Your task to perform on an android device: star an email in the gmail app Image 0: 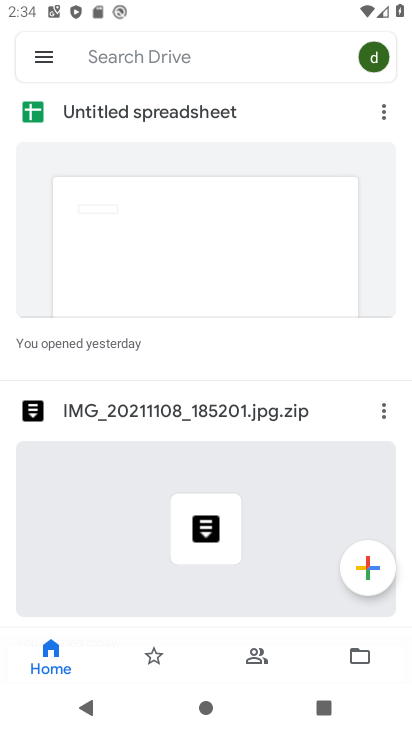
Step 0: press home button
Your task to perform on an android device: star an email in the gmail app Image 1: 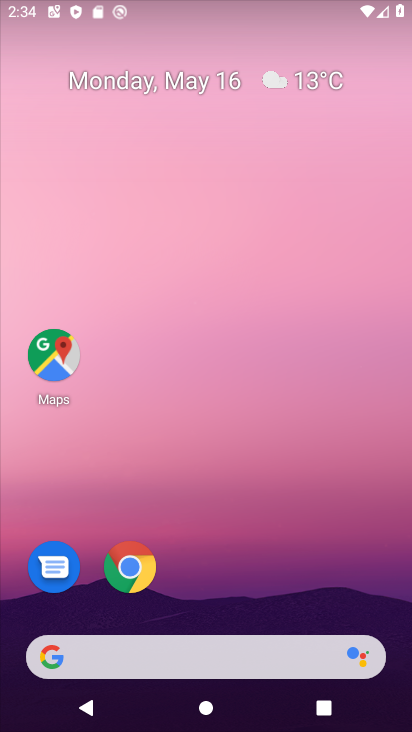
Step 1: drag from (322, 554) to (312, 93)
Your task to perform on an android device: star an email in the gmail app Image 2: 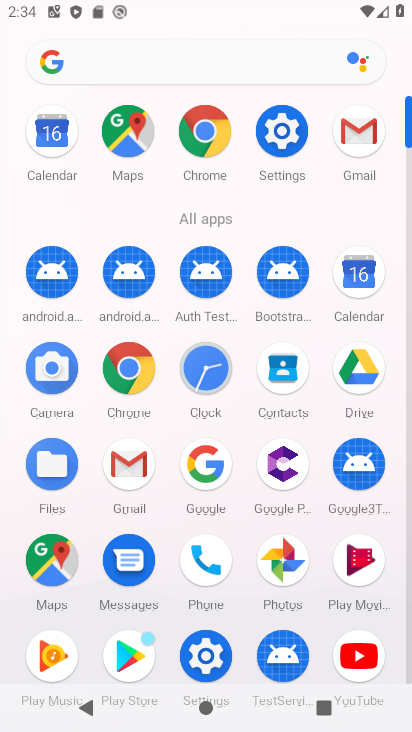
Step 2: click (357, 122)
Your task to perform on an android device: star an email in the gmail app Image 3: 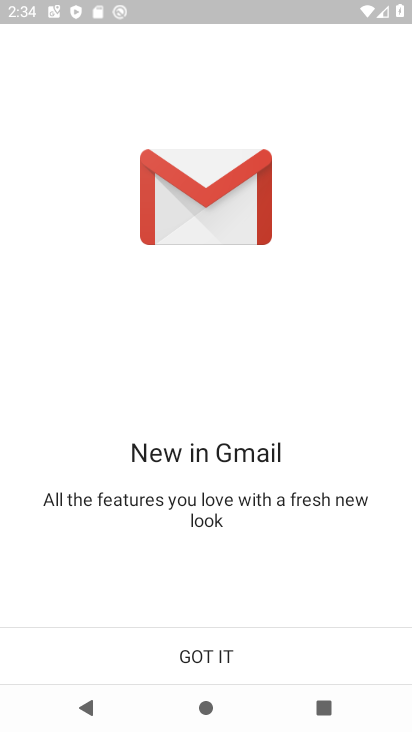
Step 3: click (175, 647)
Your task to perform on an android device: star an email in the gmail app Image 4: 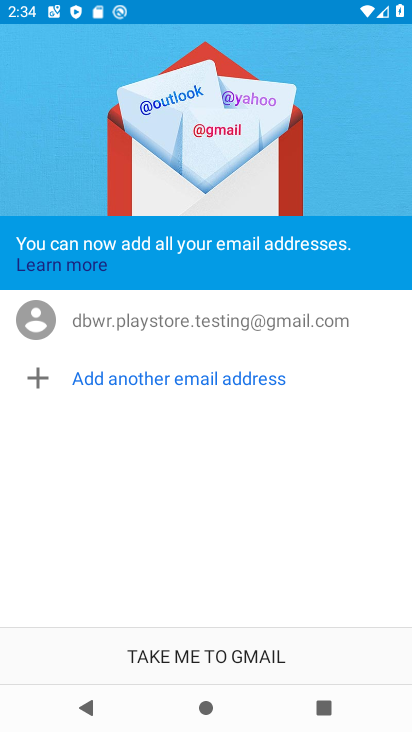
Step 4: click (176, 646)
Your task to perform on an android device: star an email in the gmail app Image 5: 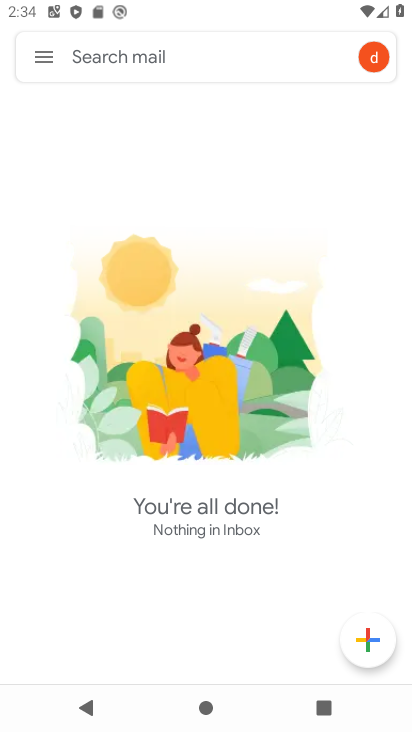
Step 5: click (46, 60)
Your task to perform on an android device: star an email in the gmail app Image 6: 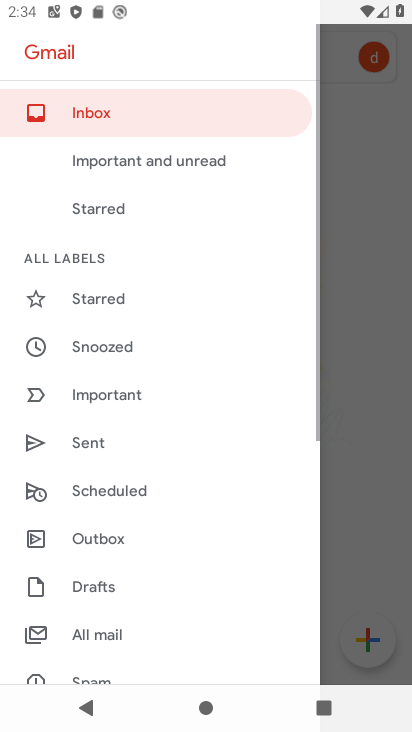
Step 6: drag from (182, 628) to (302, 151)
Your task to perform on an android device: star an email in the gmail app Image 7: 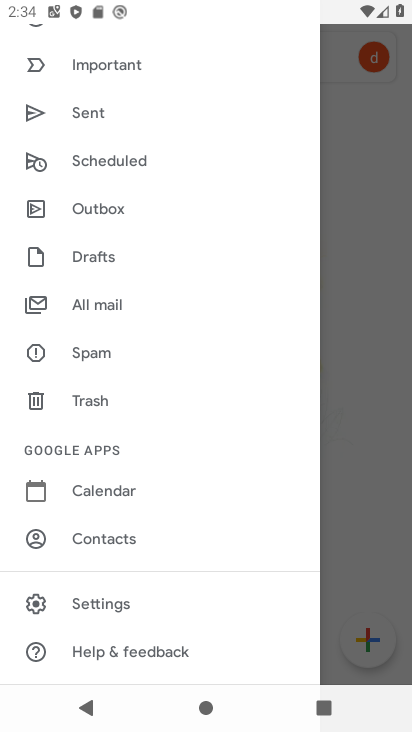
Step 7: click (107, 302)
Your task to perform on an android device: star an email in the gmail app Image 8: 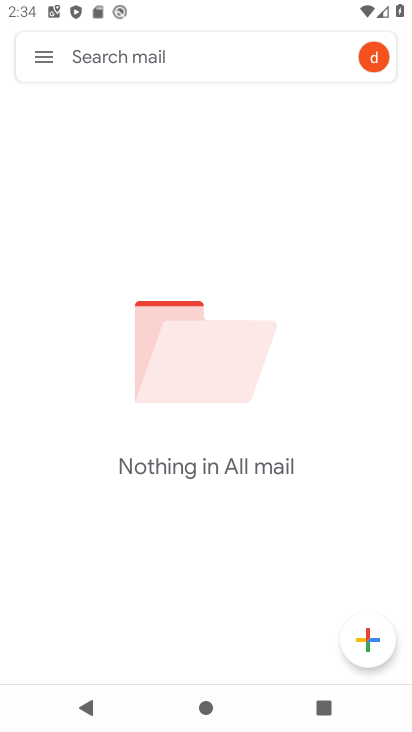
Step 8: task complete